Your task to perform on an android device: turn on the 24-hour format for clock Image 0: 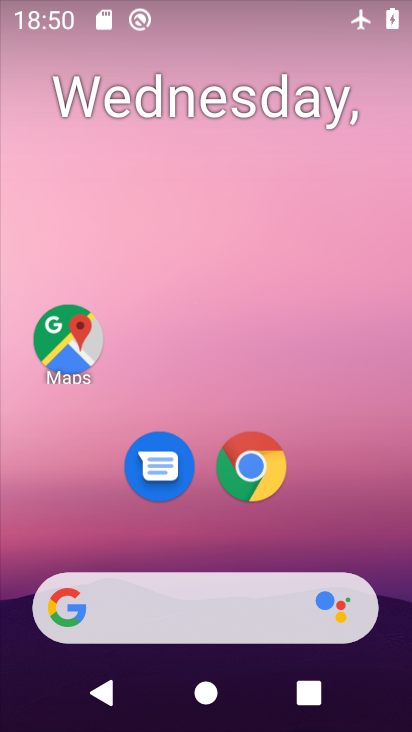
Step 0: drag from (373, 453) to (283, 21)
Your task to perform on an android device: turn on the 24-hour format for clock Image 1: 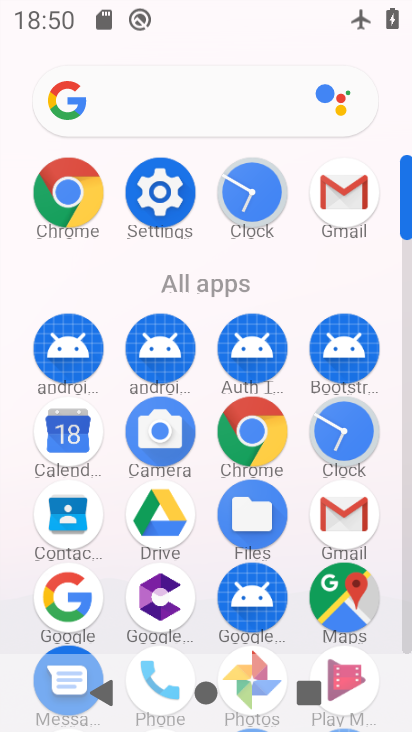
Step 1: click (263, 196)
Your task to perform on an android device: turn on the 24-hour format for clock Image 2: 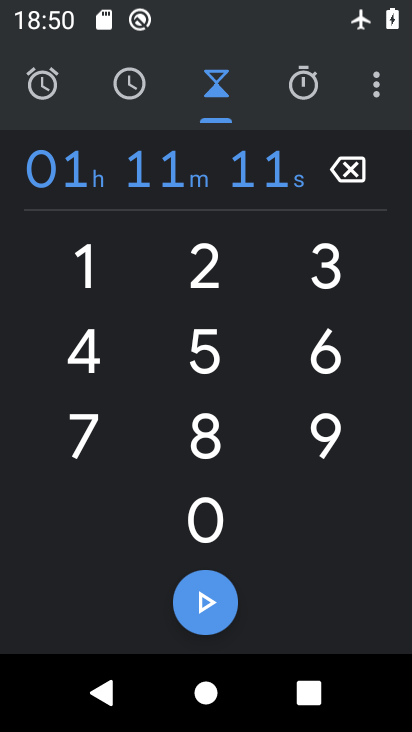
Step 2: click (377, 84)
Your task to perform on an android device: turn on the 24-hour format for clock Image 3: 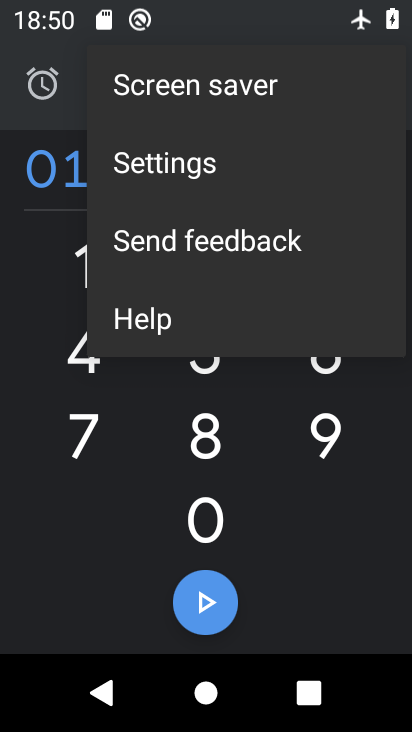
Step 3: click (199, 157)
Your task to perform on an android device: turn on the 24-hour format for clock Image 4: 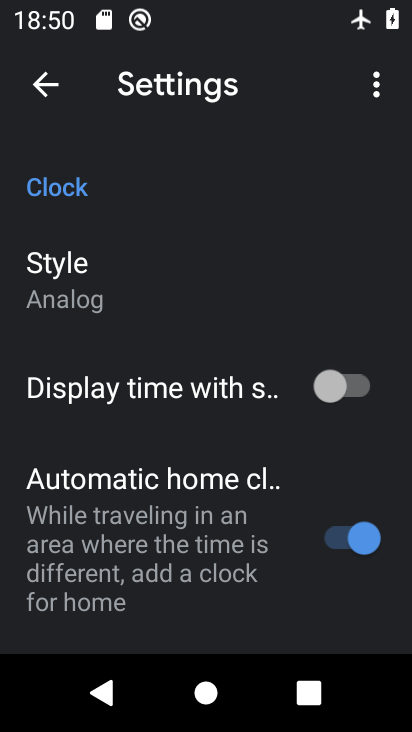
Step 4: drag from (247, 587) to (188, 280)
Your task to perform on an android device: turn on the 24-hour format for clock Image 5: 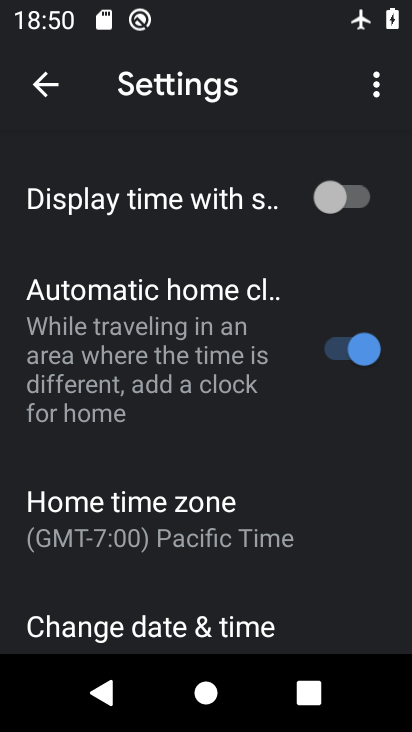
Step 5: drag from (215, 527) to (174, 273)
Your task to perform on an android device: turn on the 24-hour format for clock Image 6: 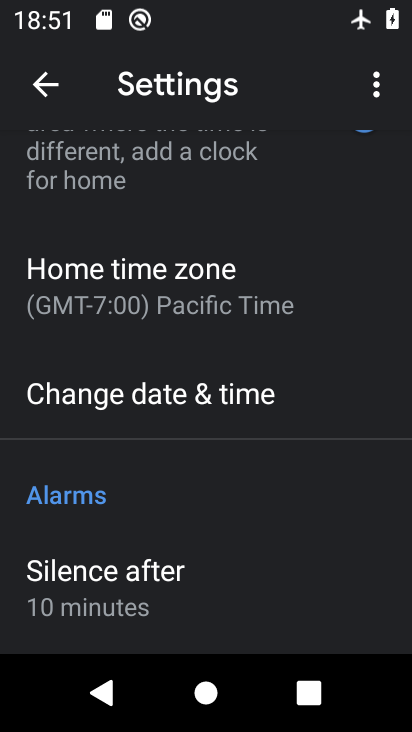
Step 6: click (129, 389)
Your task to perform on an android device: turn on the 24-hour format for clock Image 7: 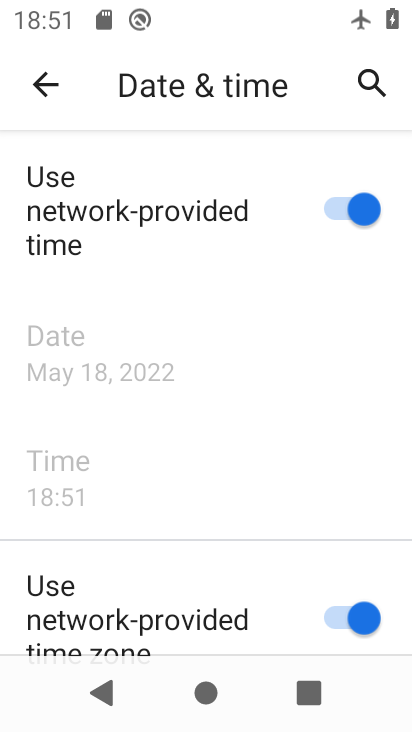
Step 7: task complete